Your task to perform on an android device: Open Amazon Image 0: 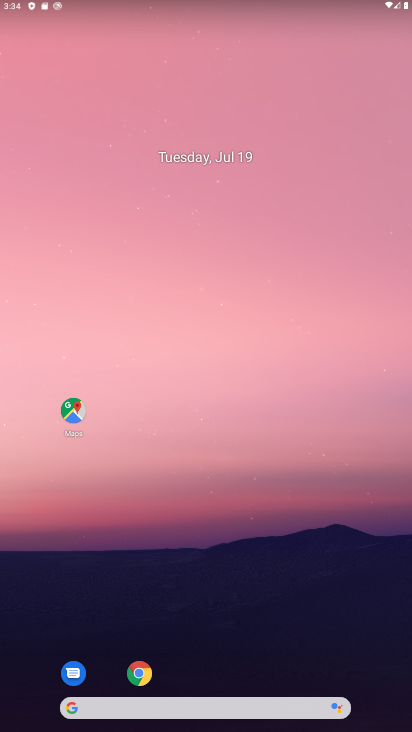
Step 0: drag from (269, 672) to (257, 146)
Your task to perform on an android device: Open Amazon Image 1: 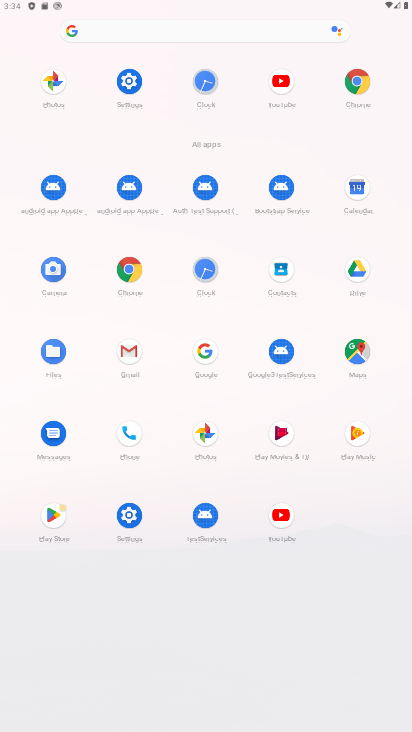
Step 1: click (124, 266)
Your task to perform on an android device: Open Amazon Image 2: 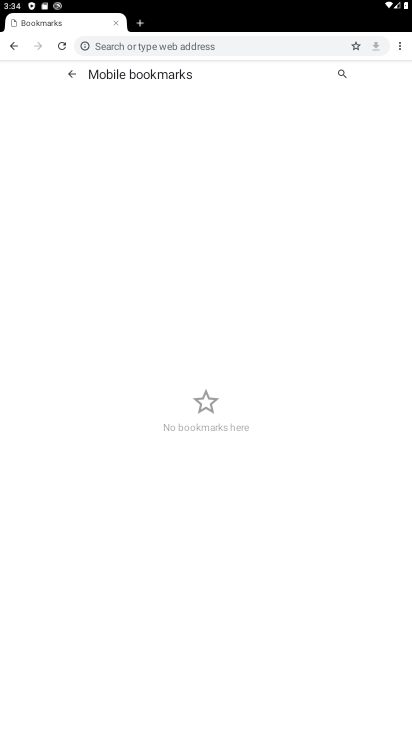
Step 2: click (187, 49)
Your task to perform on an android device: Open Amazon Image 3: 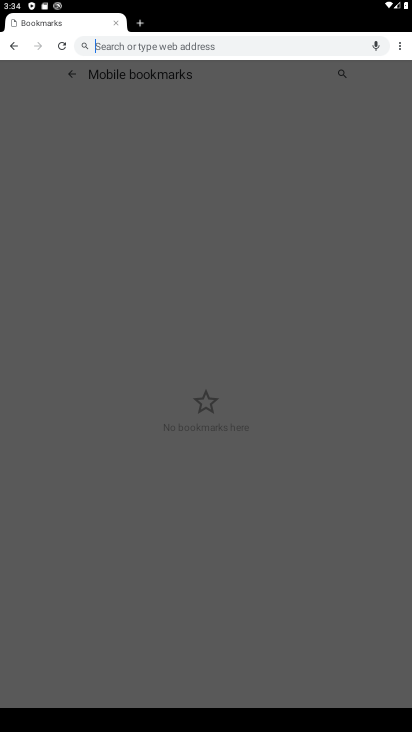
Step 3: type "amazon"
Your task to perform on an android device: Open Amazon Image 4: 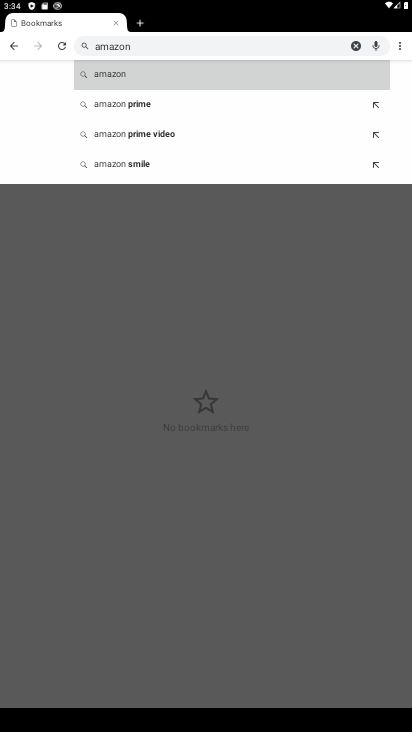
Step 4: click (111, 63)
Your task to perform on an android device: Open Amazon Image 5: 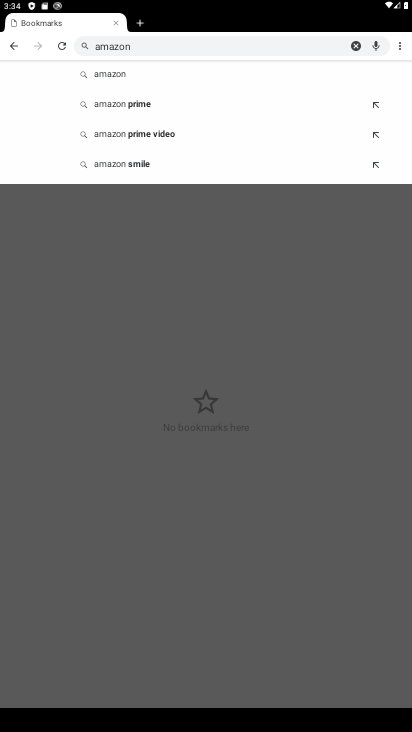
Step 5: click (110, 78)
Your task to perform on an android device: Open Amazon Image 6: 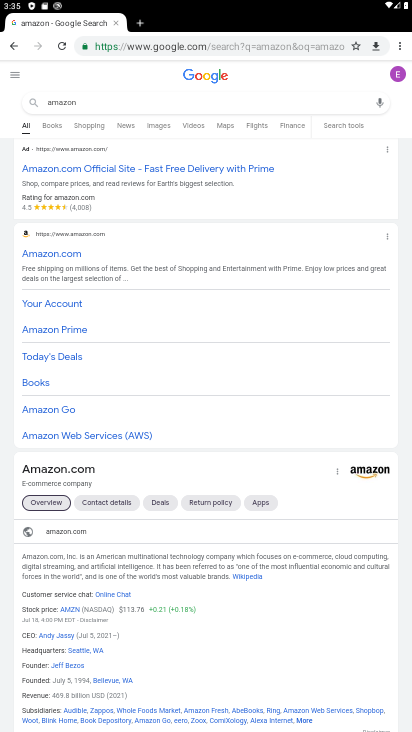
Step 6: click (54, 253)
Your task to perform on an android device: Open Amazon Image 7: 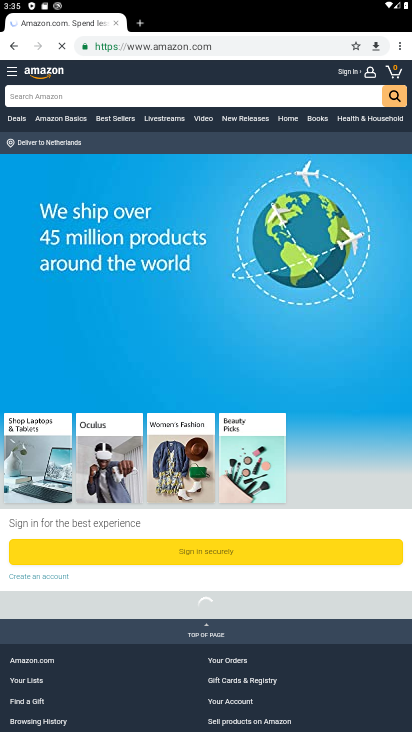
Step 7: task complete